Your task to perform on an android device: change the clock style Image 0: 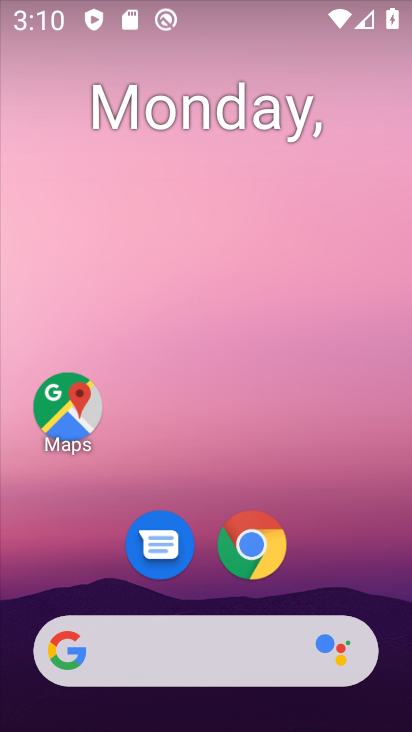
Step 0: drag from (205, 506) to (285, 200)
Your task to perform on an android device: change the clock style Image 1: 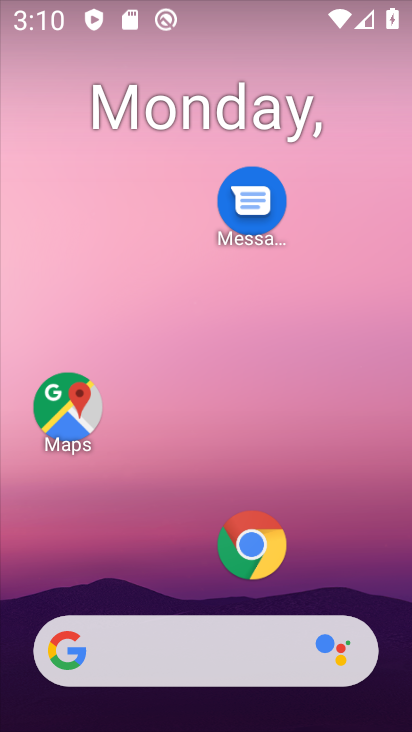
Step 1: drag from (134, 568) to (256, 107)
Your task to perform on an android device: change the clock style Image 2: 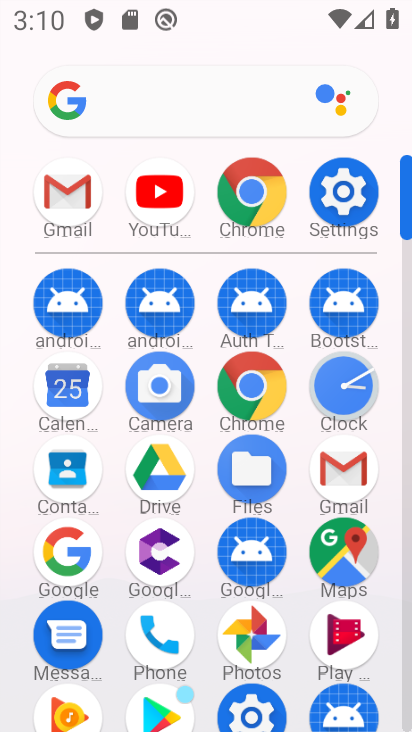
Step 2: click (350, 375)
Your task to perform on an android device: change the clock style Image 3: 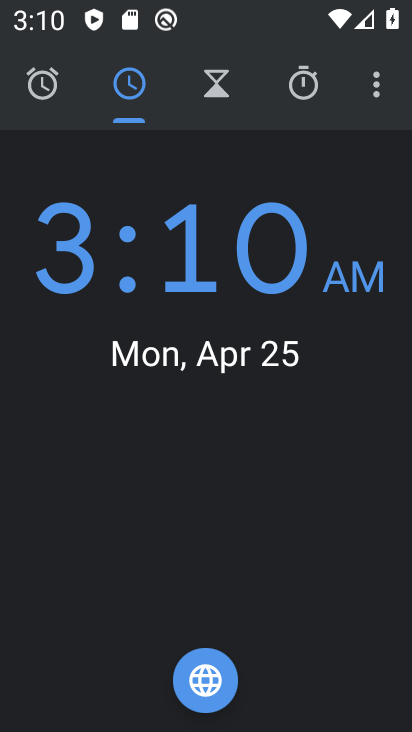
Step 3: click (372, 91)
Your task to perform on an android device: change the clock style Image 4: 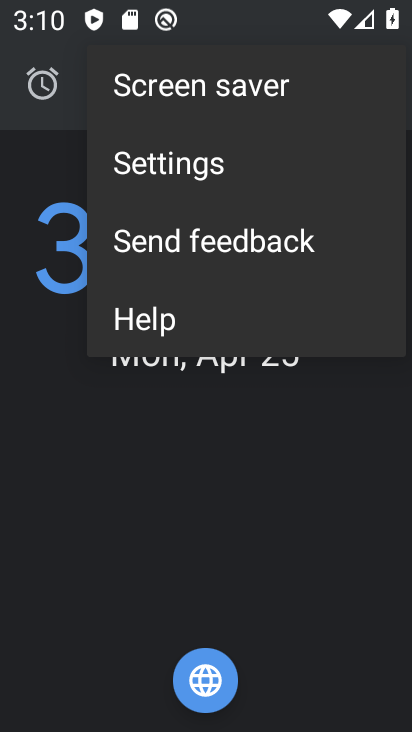
Step 4: click (196, 172)
Your task to perform on an android device: change the clock style Image 5: 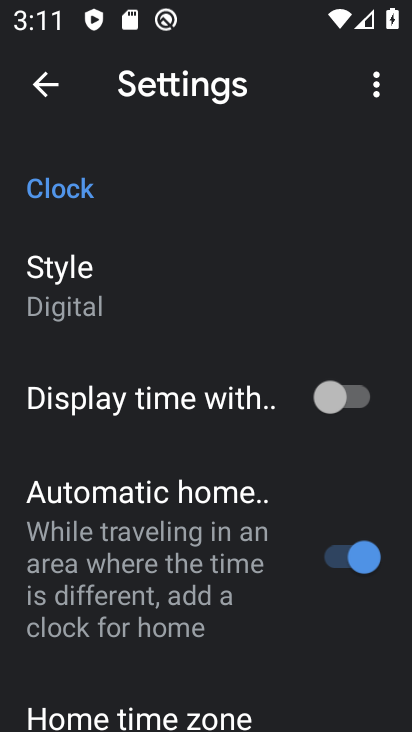
Step 5: click (153, 293)
Your task to perform on an android device: change the clock style Image 6: 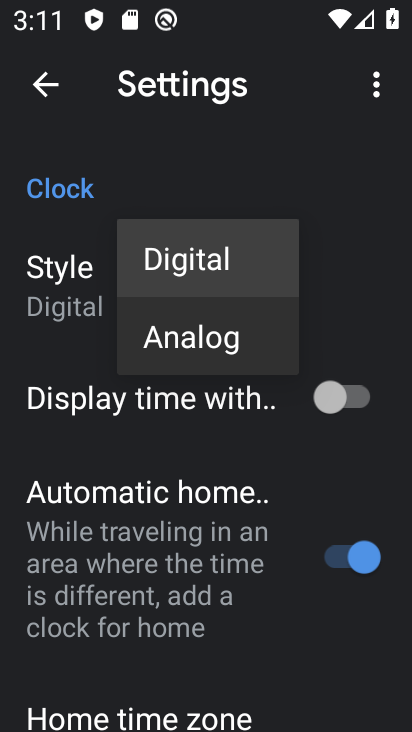
Step 6: click (171, 341)
Your task to perform on an android device: change the clock style Image 7: 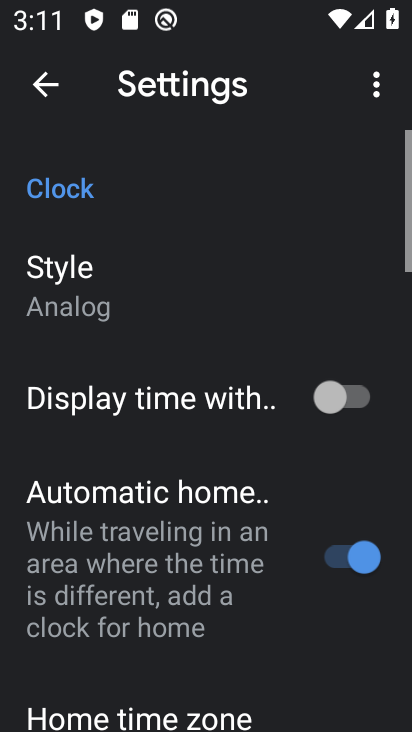
Step 7: task complete